Your task to perform on an android device: Go to location settings Image 0: 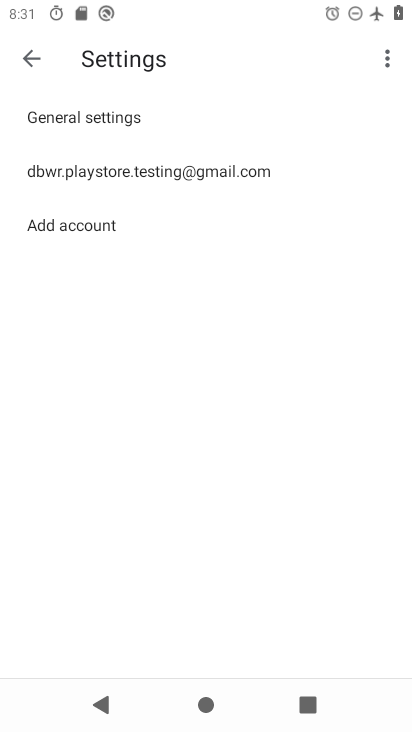
Step 0: press home button
Your task to perform on an android device: Go to location settings Image 1: 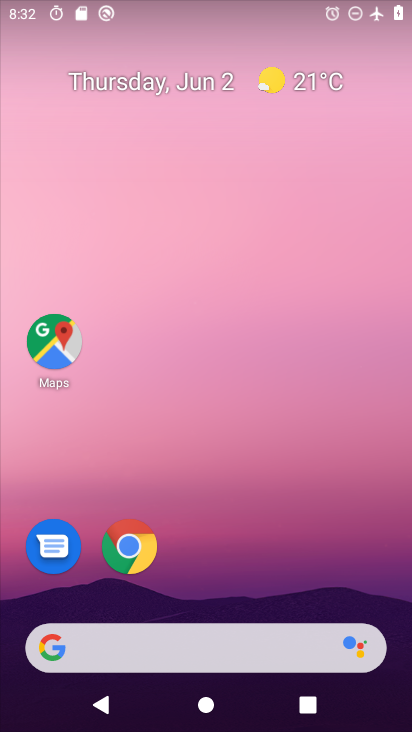
Step 1: drag from (347, 560) to (368, 111)
Your task to perform on an android device: Go to location settings Image 2: 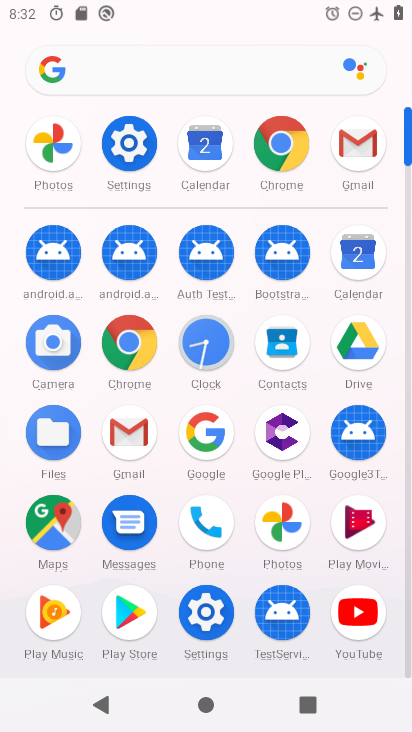
Step 2: click (219, 613)
Your task to perform on an android device: Go to location settings Image 3: 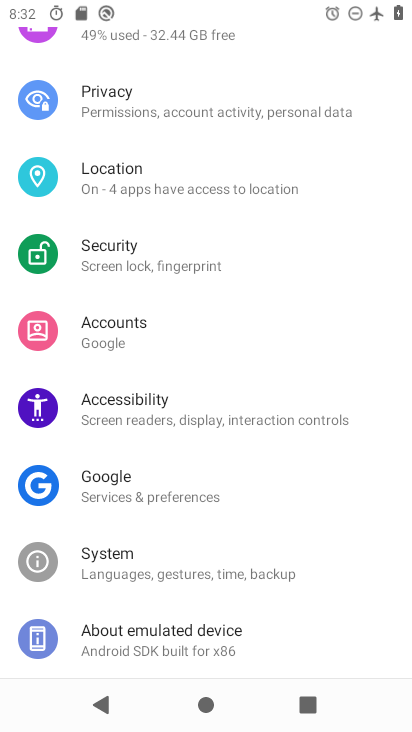
Step 3: click (267, 178)
Your task to perform on an android device: Go to location settings Image 4: 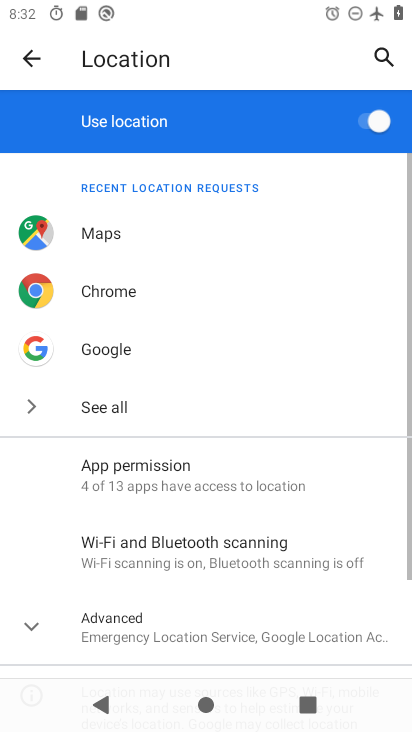
Step 4: drag from (286, 592) to (362, 280)
Your task to perform on an android device: Go to location settings Image 5: 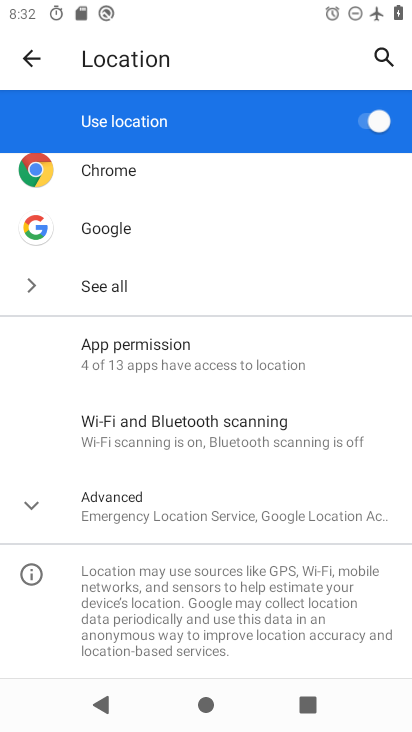
Step 5: click (260, 505)
Your task to perform on an android device: Go to location settings Image 6: 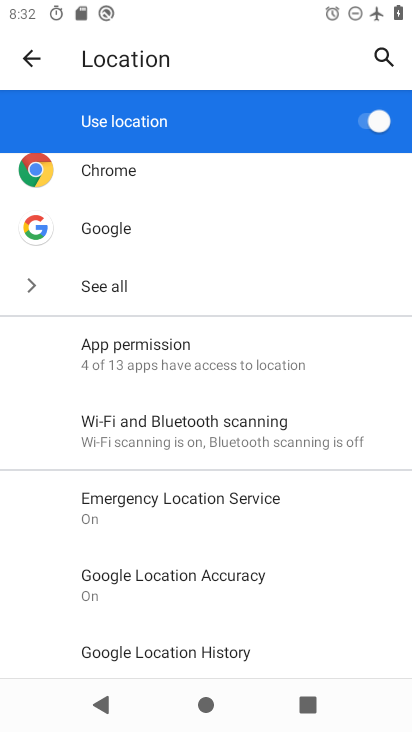
Step 6: task complete